Your task to perform on an android device: find photos in the google photos app Image 0: 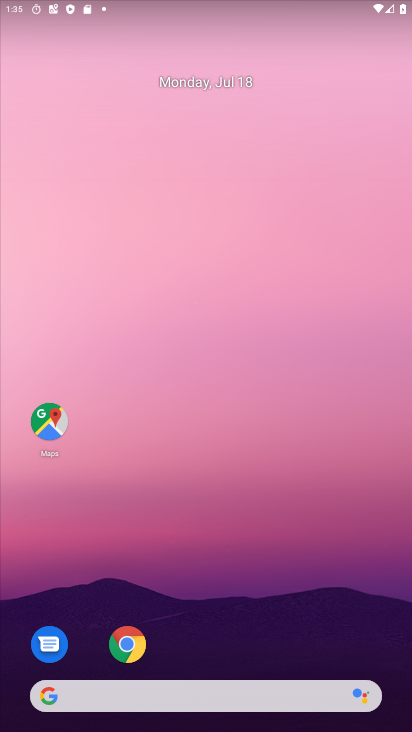
Step 0: drag from (280, 578) to (293, 59)
Your task to perform on an android device: find photos in the google photos app Image 1: 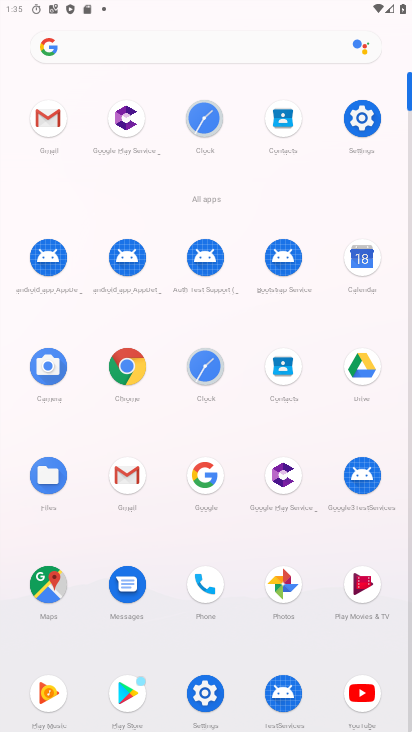
Step 1: click (288, 577)
Your task to perform on an android device: find photos in the google photos app Image 2: 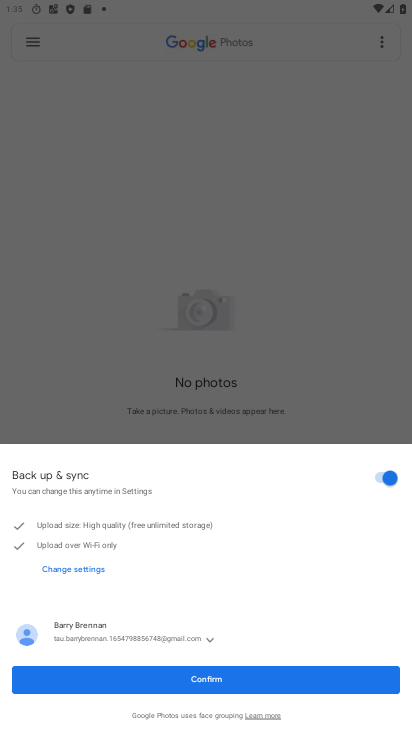
Step 2: click (183, 673)
Your task to perform on an android device: find photos in the google photos app Image 3: 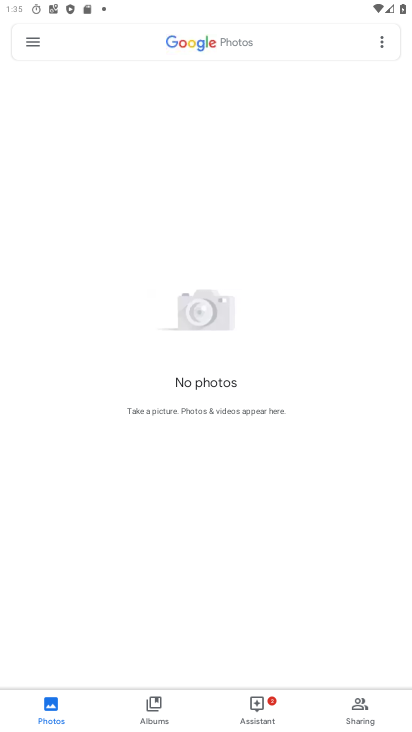
Step 3: task complete